Your task to perform on an android device: Show the shopping cart on amazon.com. Add alienware aurora to the cart on amazon.com Image 0: 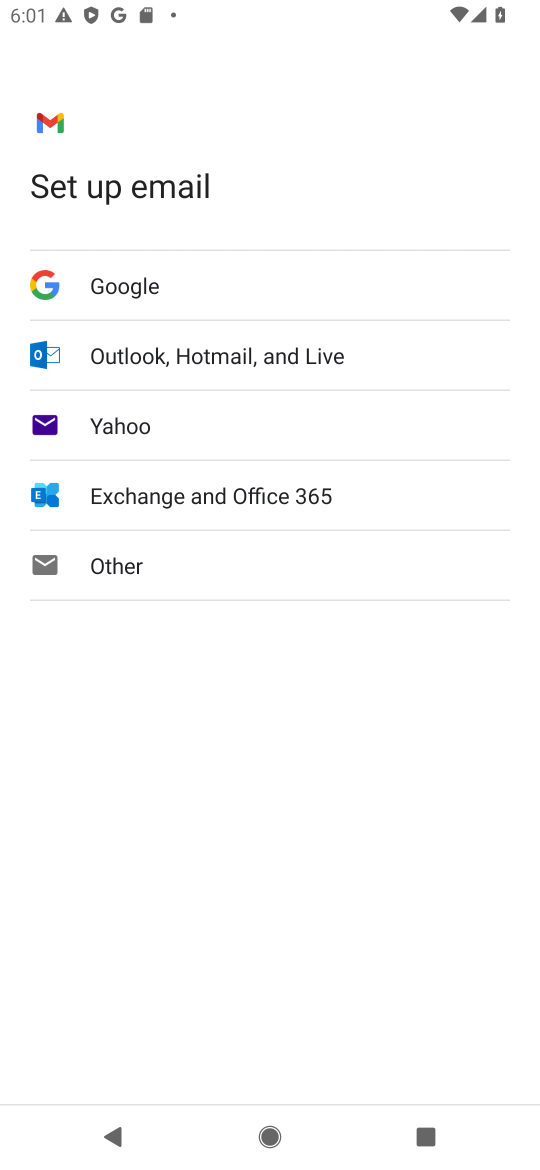
Step 0: press home button
Your task to perform on an android device: Show the shopping cart on amazon.com. Add alienware aurora to the cart on amazon.com Image 1: 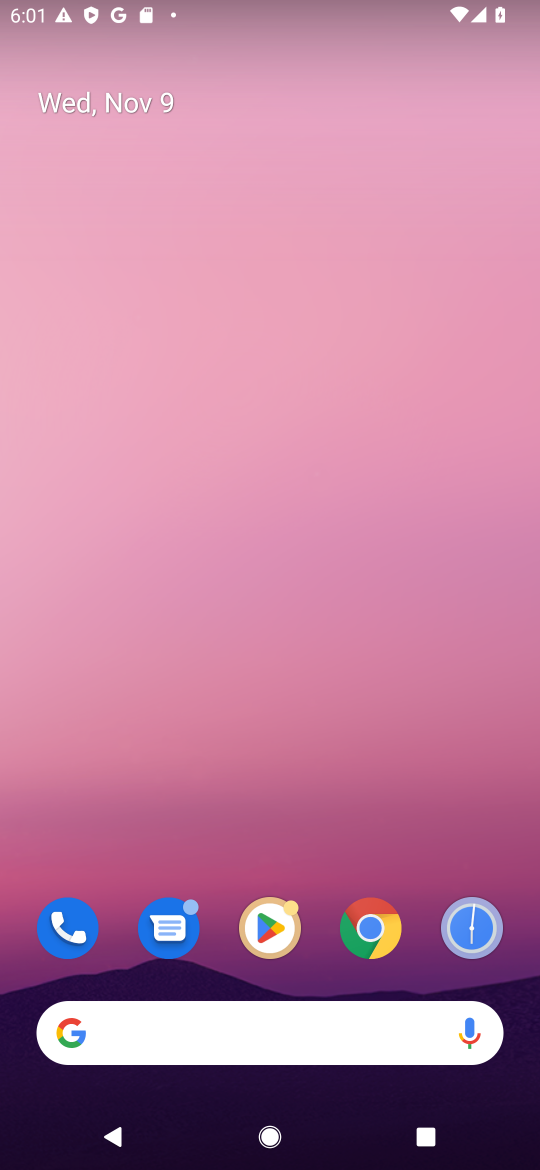
Step 1: click (206, 1041)
Your task to perform on an android device: Show the shopping cart on amazon.com. Add alienware aurora to the cart on amazon.com Image 2: 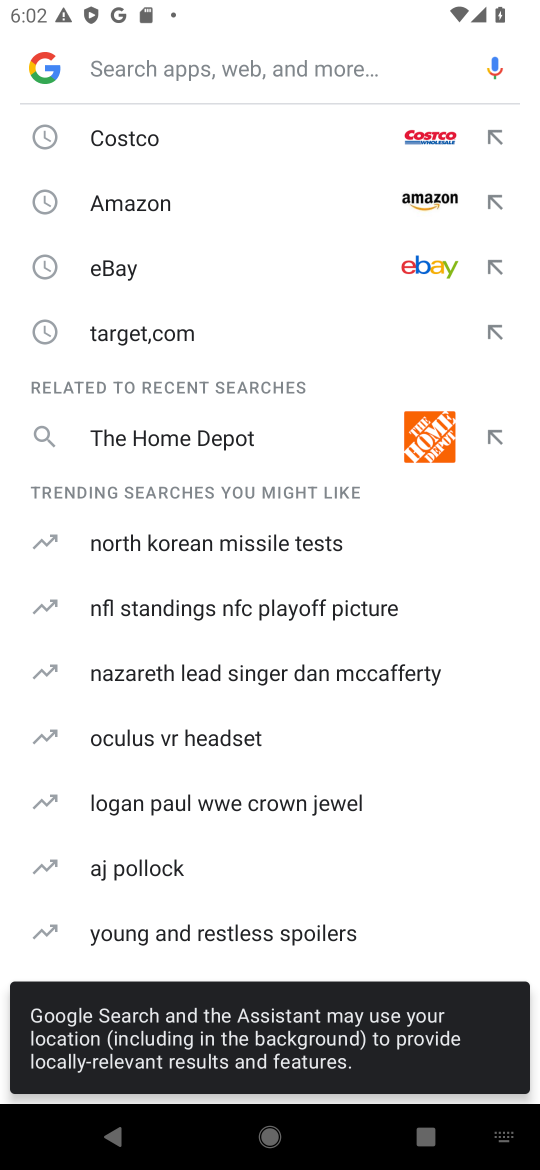
Step 2: click (143, 208)
Your task to perform on an android device: Show the shopping cart on amazon.com. Add alienware aurora to the cart on amazon.com Image 3: 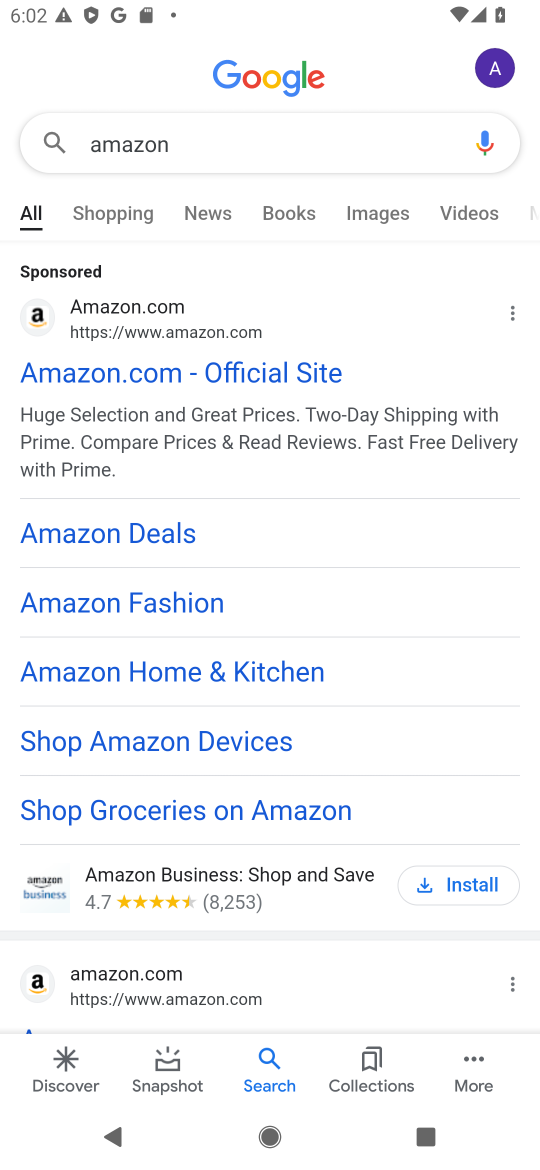
Step 3: drag from (182, 996) to (263, 456)
Your task to perform on an android device: Show the shopping cart on amazon.com. Add alienware aurora to the cart on amazon.com Image 4: 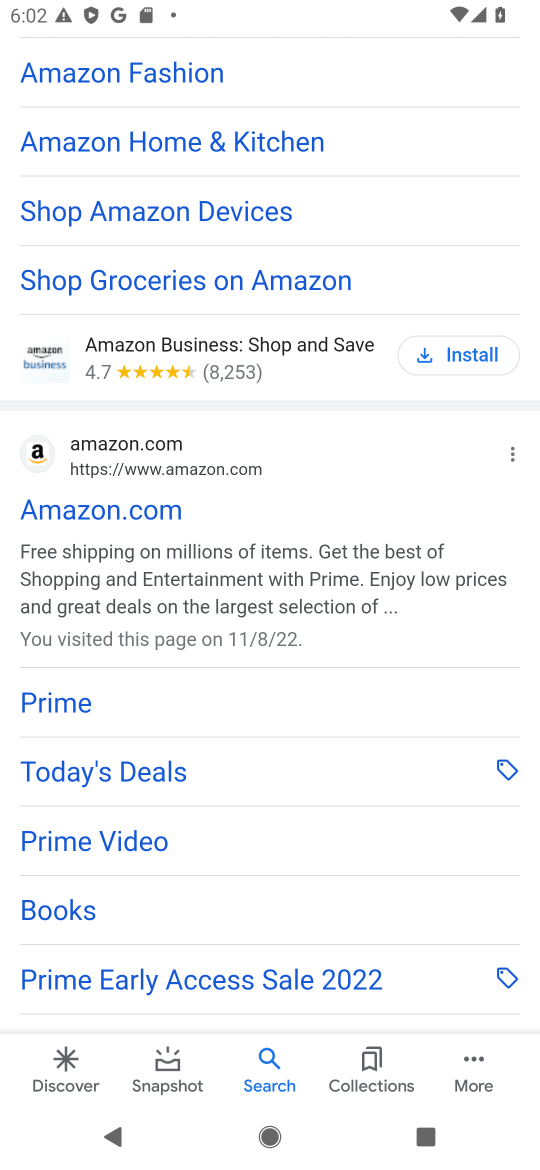
Step 4: click (115, 518)
Your task to perform on an android device: Show the shopping cart on amazon.com. Add alienware aurora to the cart on amazon.com Image 5: 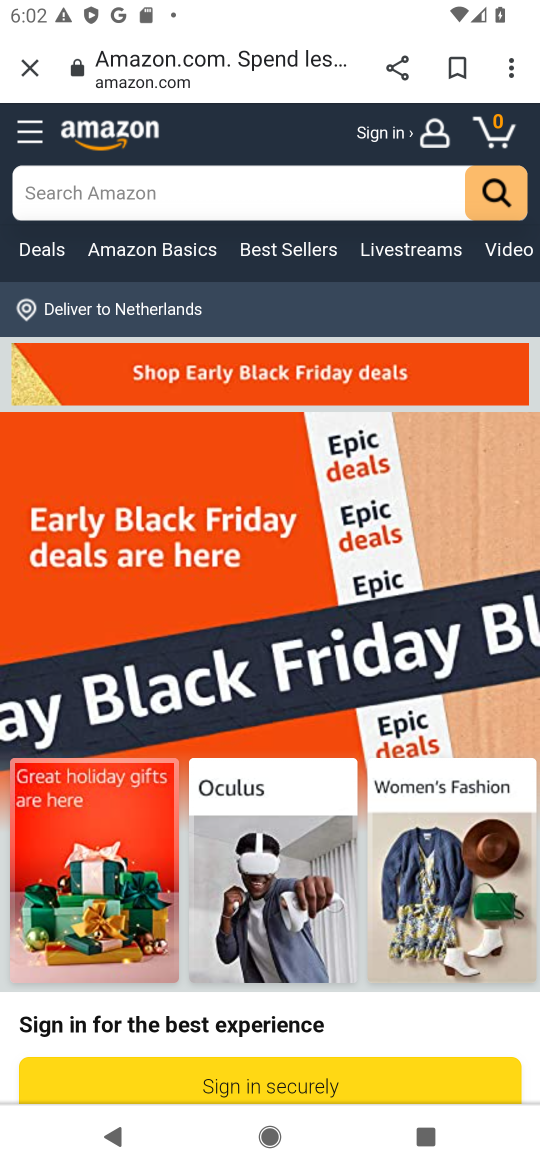
Step 5: click (365, 191)
Your task to perform on an android device: Show the shopping cart on amazon.com. Add alienware aurora to the cart on amazon.com Image 6: 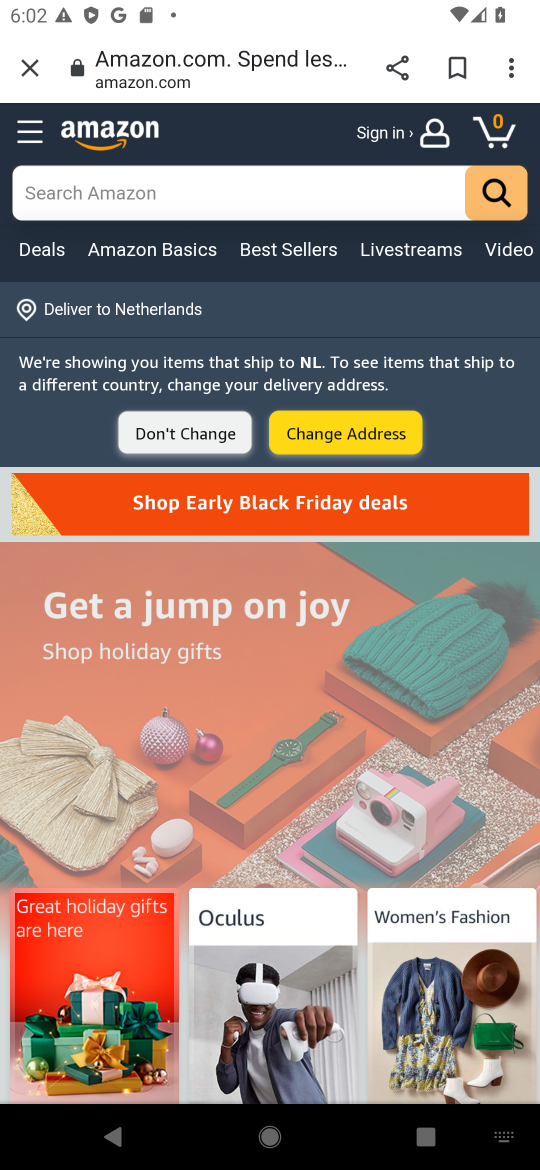
Step 6: type "alienware aurora"
Your task to perform on an android device: Show the shopping cart on amazon.com. Add alienware aurora to the cart on amazon.com Image 7: 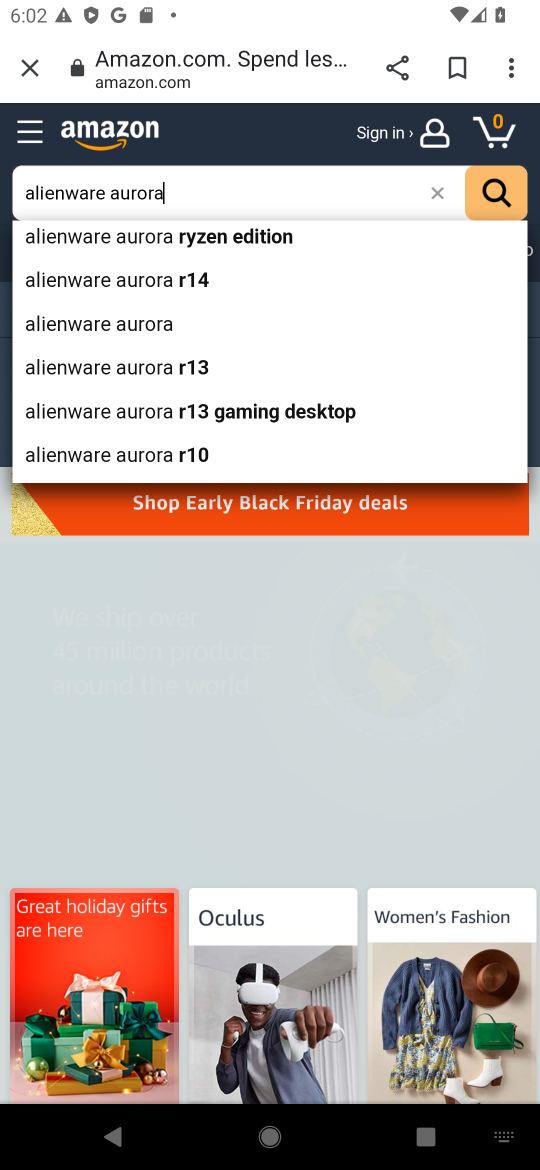
Step 7: click (183, 283)
Your task to perform on an android device: Show the shopping cart on amazon.com. Add alienware aurora to the cart on amazon.com Image 8: 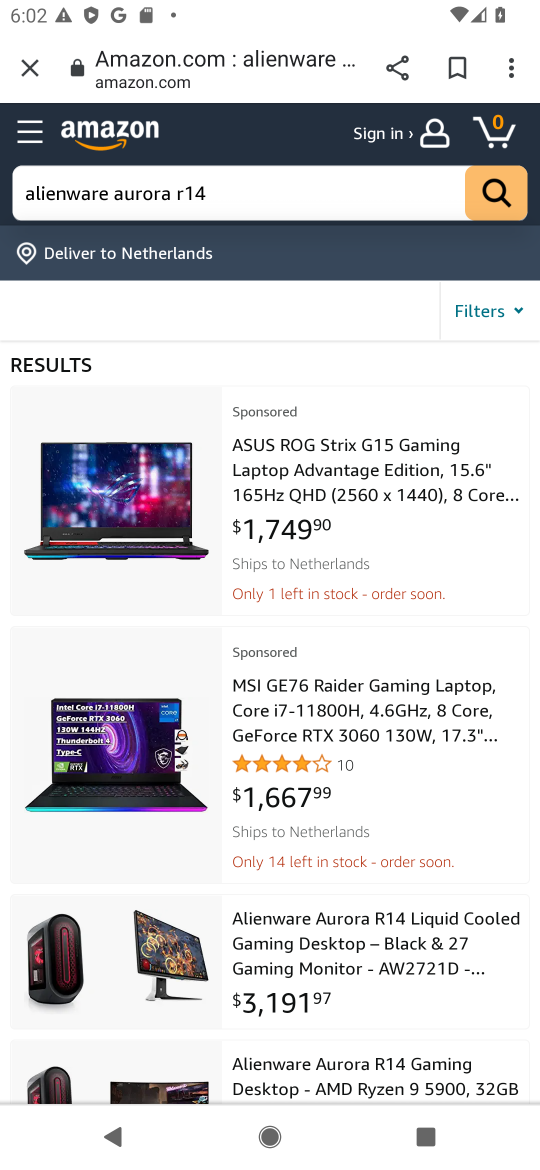
Step 8: click (322, 942)
Your task to perform on an android device: Show the shopping cart on amazon.com. Add alienware aurora to the cart on amazon.com Image 9: 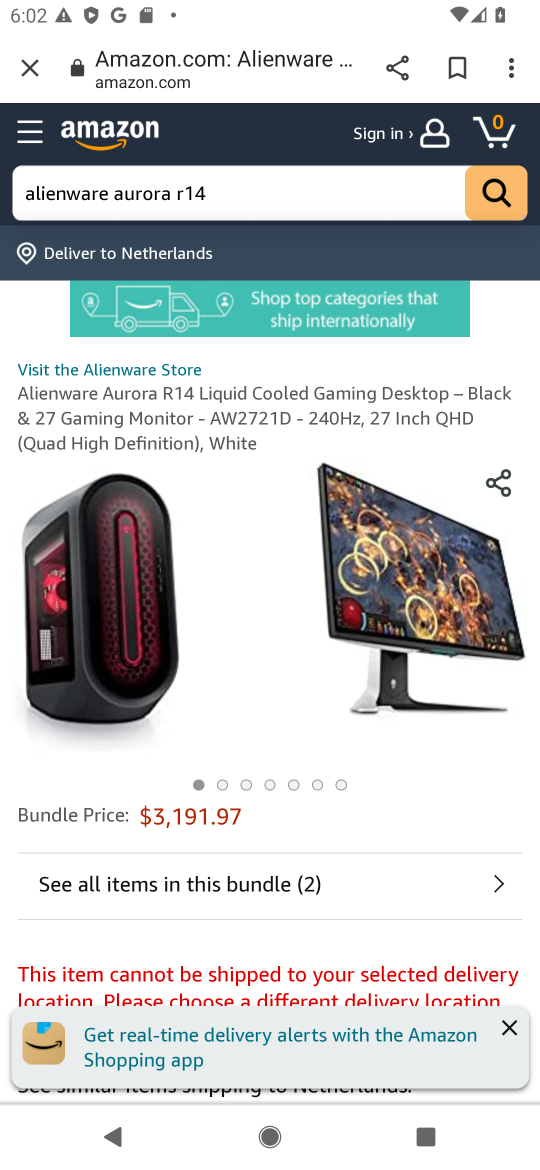
Step 9: drag from (358, 983) to (432, 510)
Your task to perform on an android device: Show the shopping cart on amazon.com. Add alienware aurora to the cart on amazon.com Image 10: 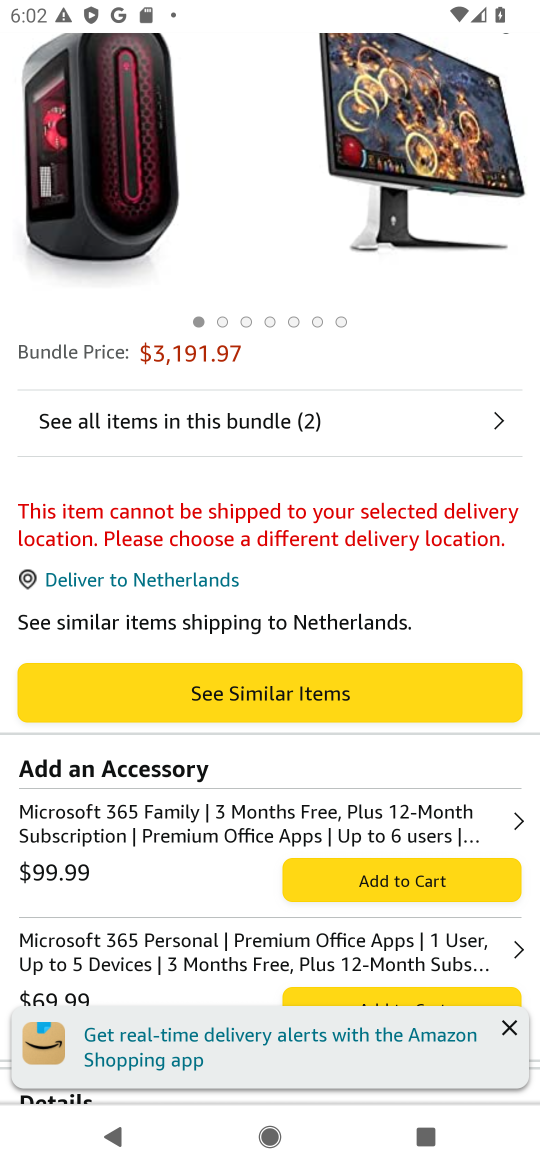
Step 10: click (416, 879)
Your task to perform on an android device: Show the shopping cart on amazon.com. Add alienware aurora to the cart on amazon.com Image 11: 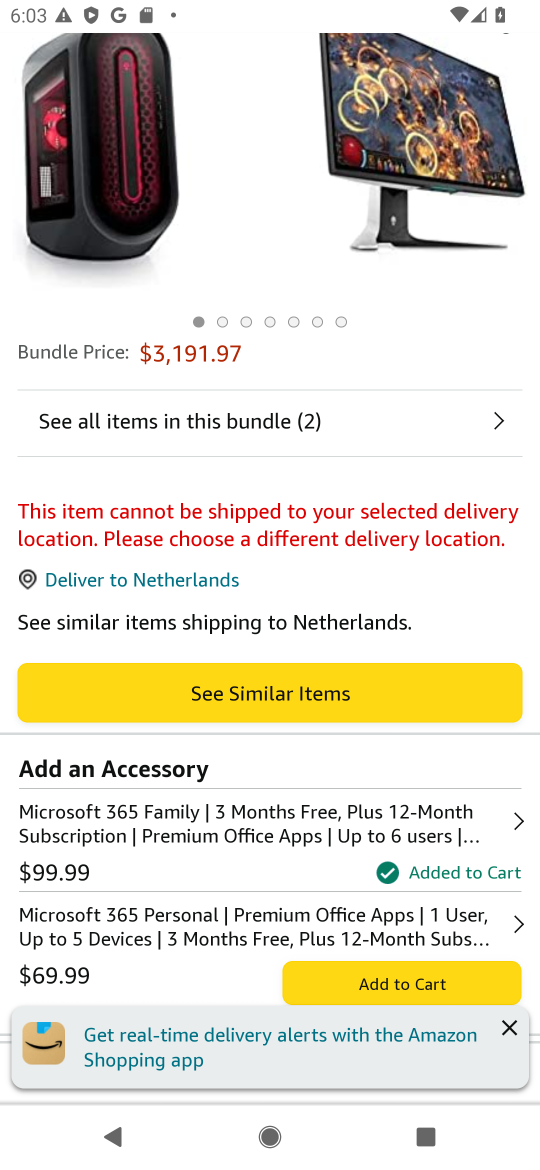
Step 11: press back button
Your task to perform on an android device: Show the shopping cart on amazon.com. Add alienware aurora to the cart on amazon.com Image 12: 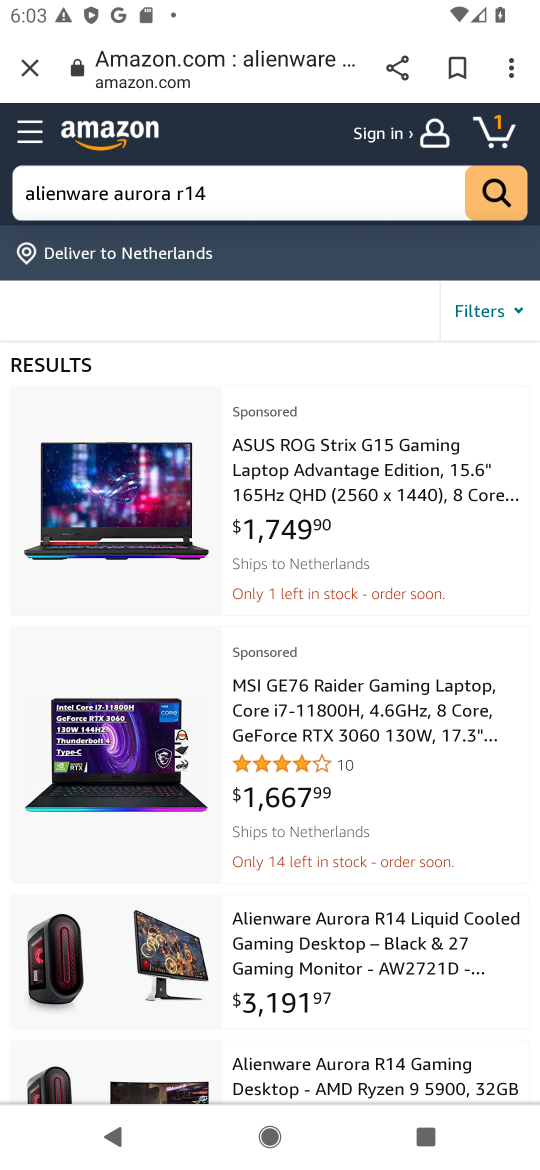
Step 12: click (367, 1077)
Your task to perform on an android device: Show the shopping cart on amazon.com. Add alienware aurora to the cart on amazon.com Image 13: 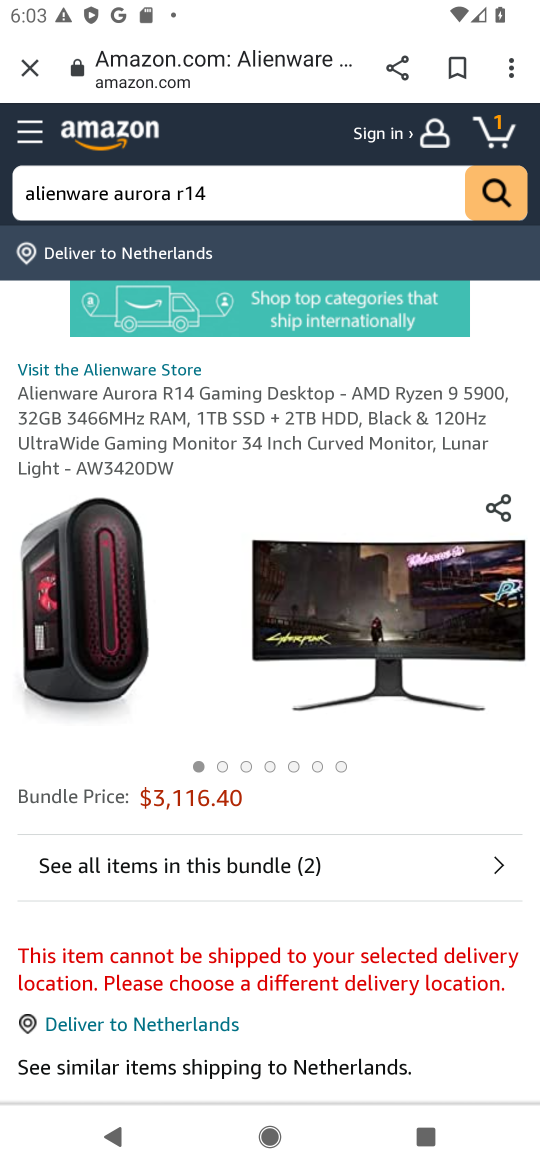
Step 13: task complete